Your task to perform on an android device: What's the weather? Image 0: 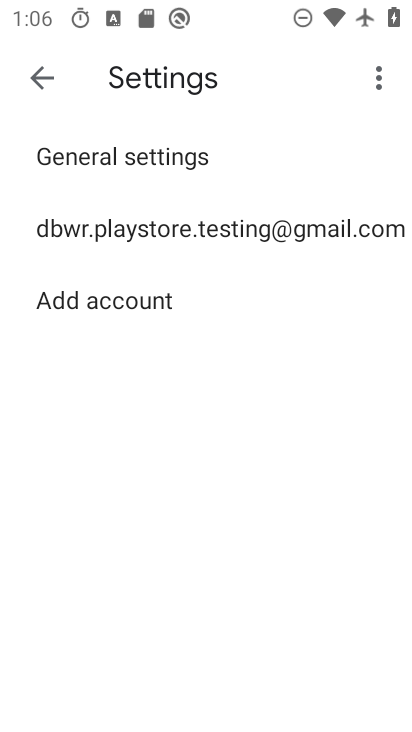
Step 0: press home button
Your task to perform on an android device: What's the weather? Image 1: 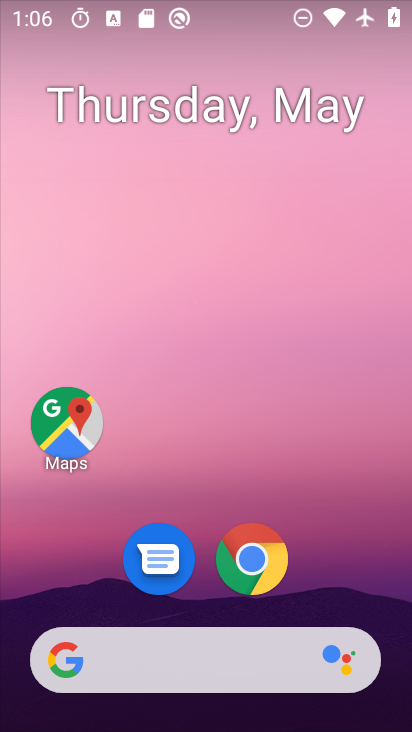
Step 1: click (332, 554)
Your task to perform on an android device: What's the weather? Image 2: 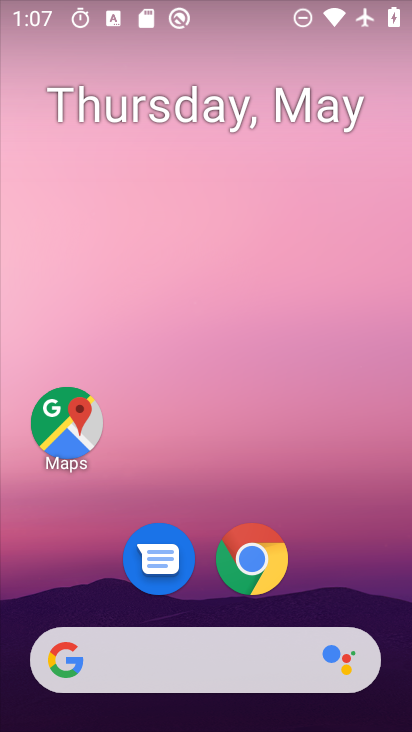
Step 2: click (332, 554)
Your task to perform on an android device: What's the weather? Image 3: 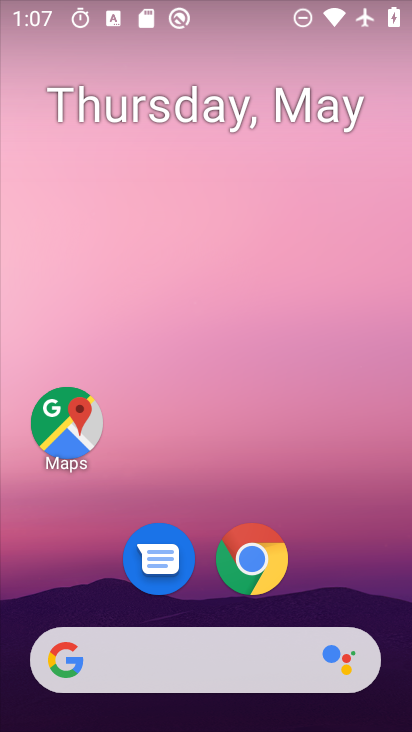
Step 3: click (332, 554)
Your task to perform on an android device: What's the weather? Image 4: 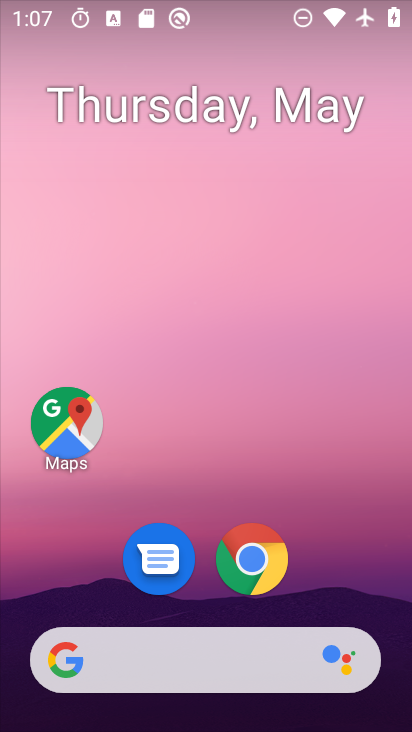
Step 4: drag from (332, 554) to (305, 119)
Your task to perform on an android device: What's the weather? Image 5: 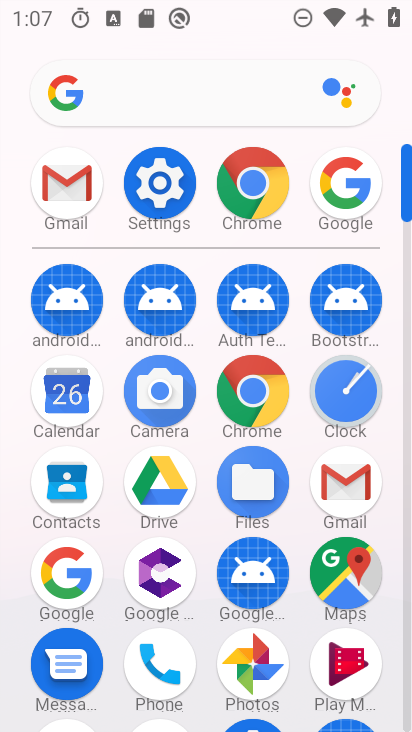
Step 5: click (80, 574)
Your task to perform on an android device: What's the weather? Image 6: 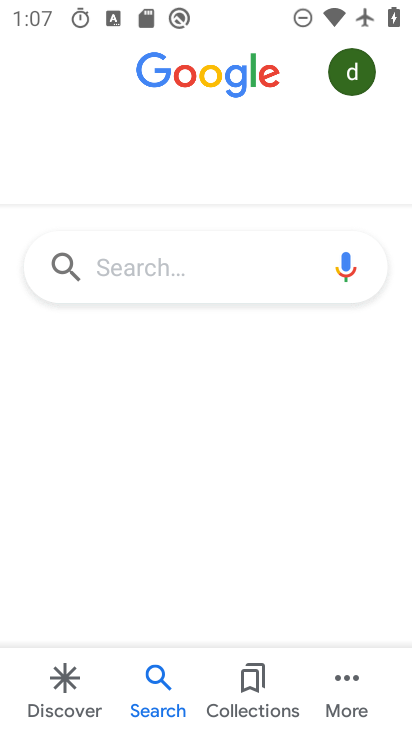
Step 6: click (199, 285)
Your task to perform on an android device: What's the weather? Image 7: 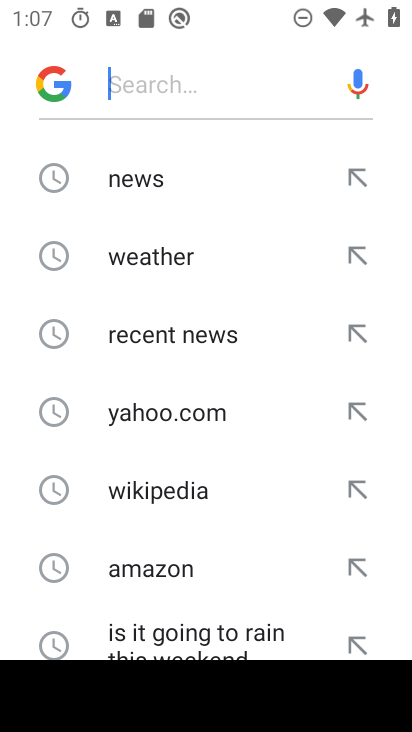
Step 7: click (219, 251)
Your task to perform on an android device: What's the weather? Image 8: 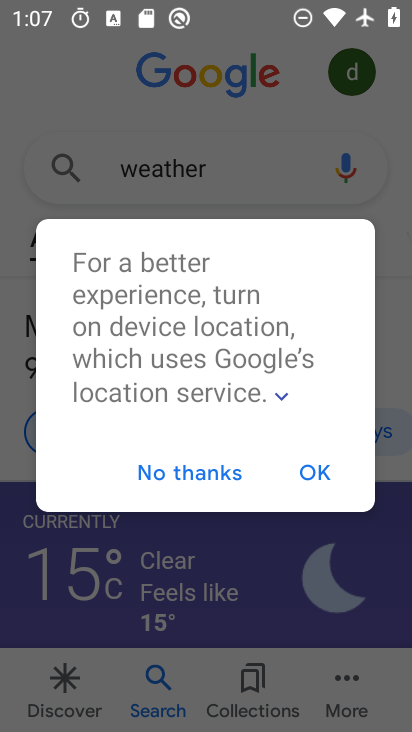
Step 8: click (310, 473)
Your task to perform on an android device: What's the weather? Image 9: 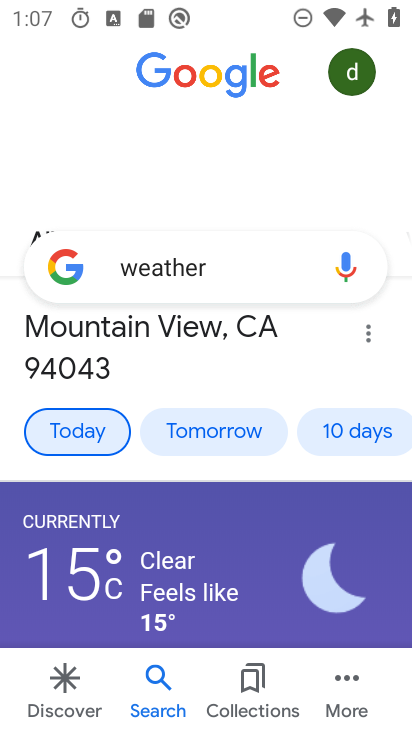
Step 9: task complete